Your task to perform on an android device: Go to network settings Image 0: 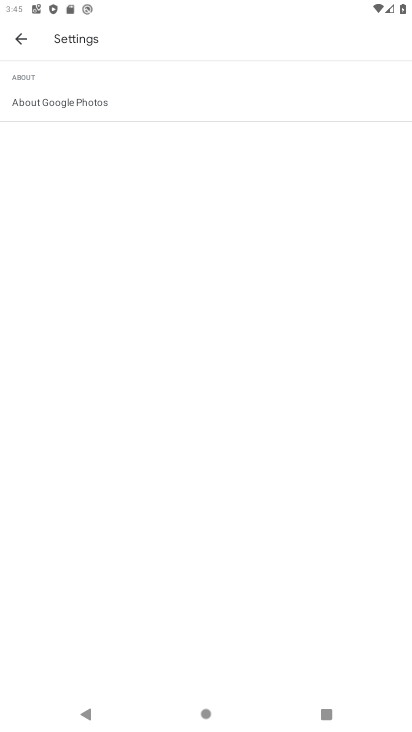
Step 0: press home button
Your task to perform on an android device: Go to network settings Image 1: 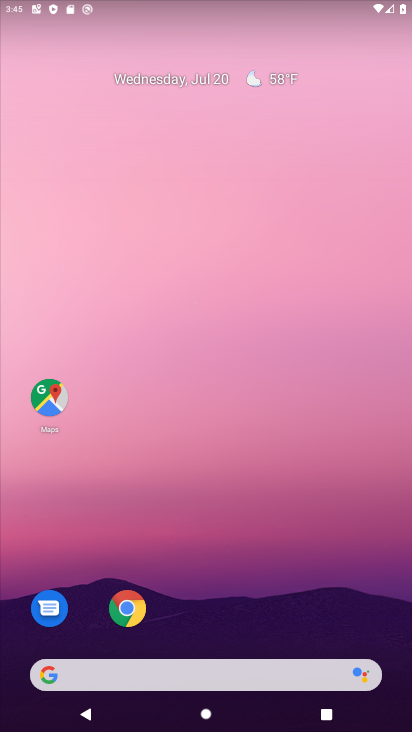
Step 1: drag from (219, 612) to (218, 422)
Your task to perform on an android device: Go to network settings Image 2: 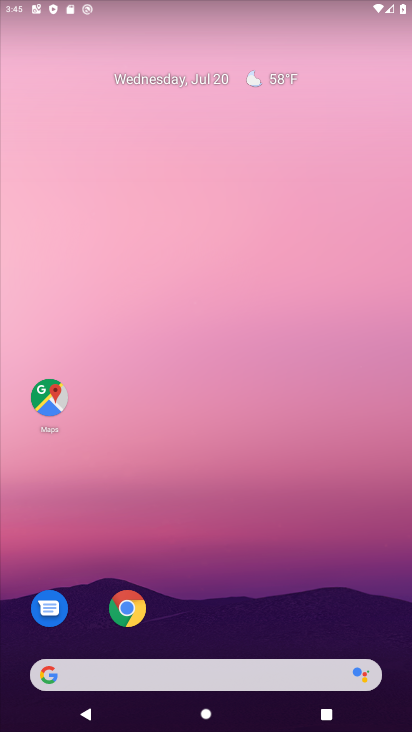
Step 2: drag from (261, 616) to (264, 136)
Your task to perform on an android device: Go to network settings Image 3: 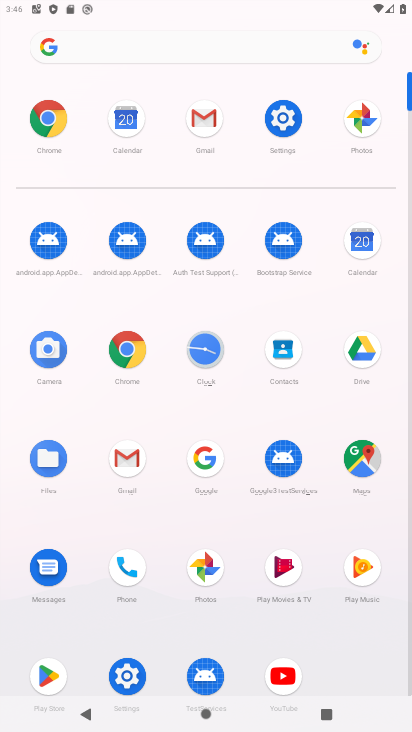
Step 3: click (264, 131)
Your task to perform on an android device: Go to network settings Image 4: 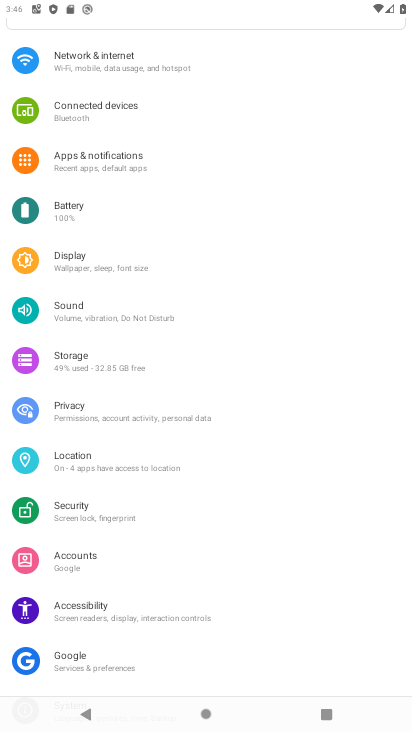
Step 4: click (182, 71)
Your task to perform on an android device: Go to network settings Image 5: 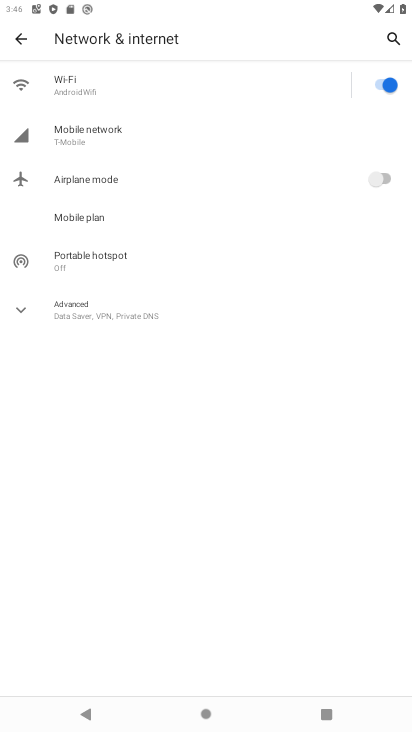
Step 5: task complete